Your task to perform on an android device: Open location settings Image 0: 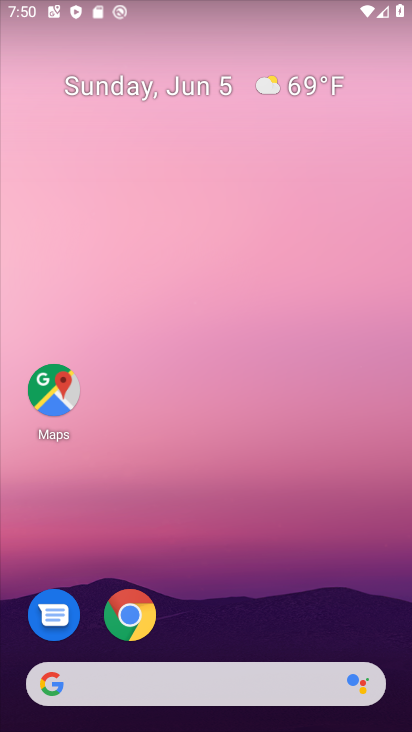
Step 0: drag from (217, 639) to (215, 205)
Your task to perform on an android device: Open location settings Image 1: 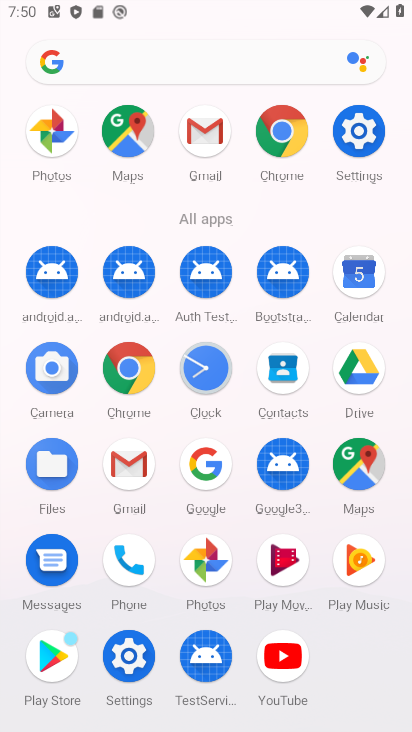
Step 1: click (361, 138)
Your task to perform on an android device: Open location settings Image 2: 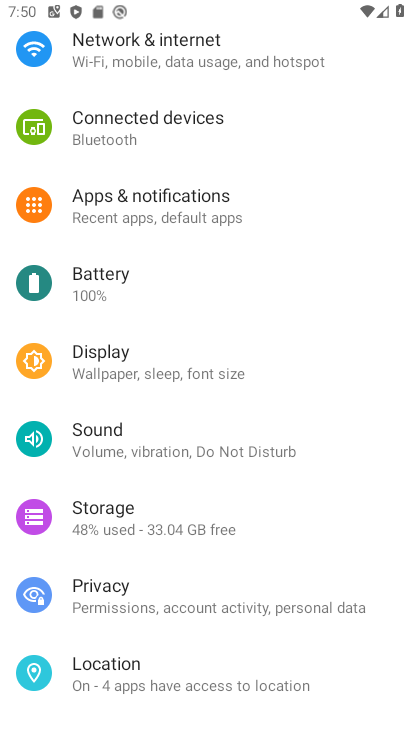
Step 2: click (115, 679)
Your task to perform on an android device: Open location settings Image 3: 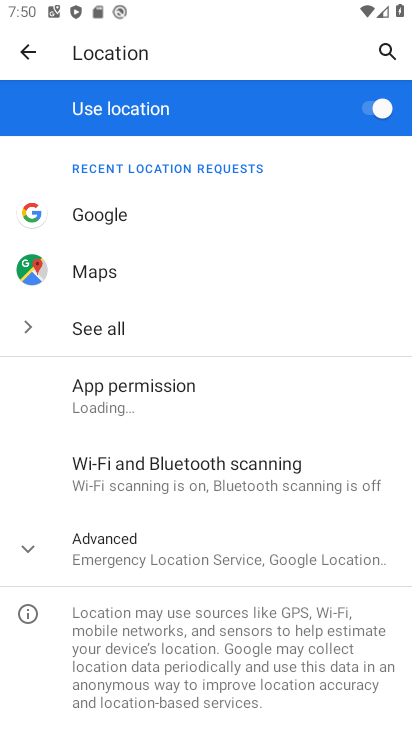
Step 3: task complete